Your task to perform on an android device: set the stopwatch Image 0: 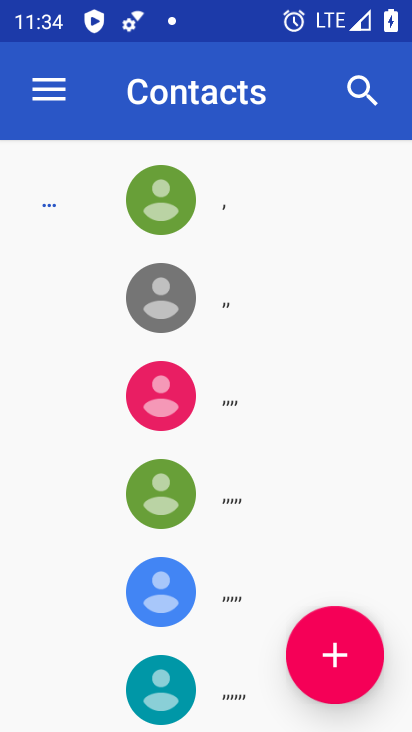
Step 0: press home button
Your task to perform on an android device: set the stopwatch Image 1: 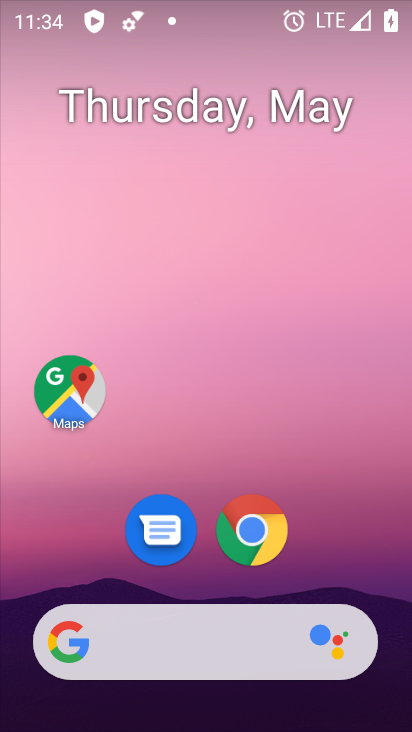
Step 1: drag from (209, 543) to (306, 45)
Your task to perform on an android device: set the stopwatch Image 2: 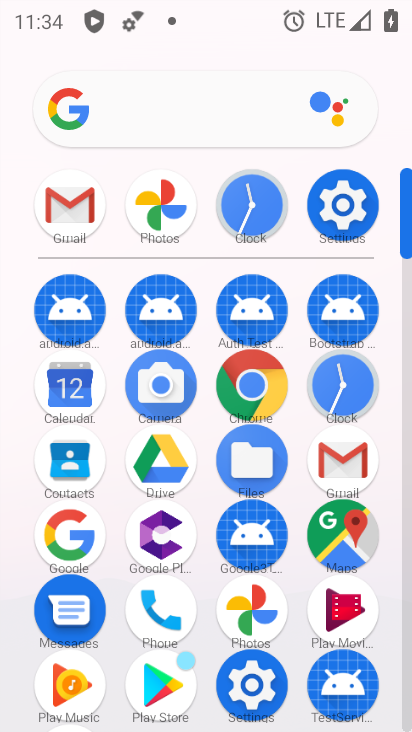
Step 2: click (337, 385)
Your task to perform on an android device: set the stopwatch Image 3: 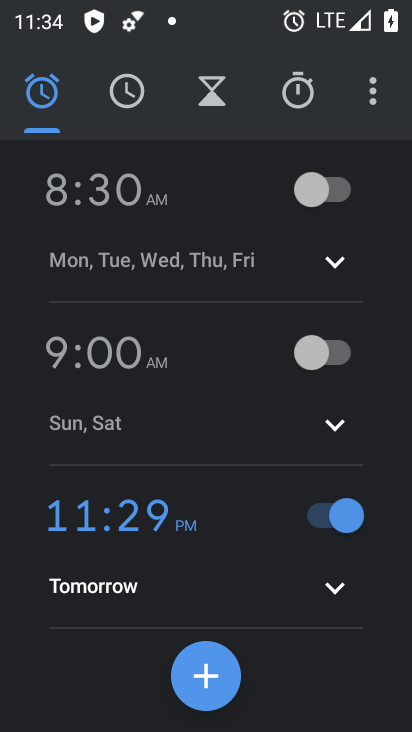
Step 3: click (284, 92)
Your task to perform on an android device: set the stopwatch Image 4: 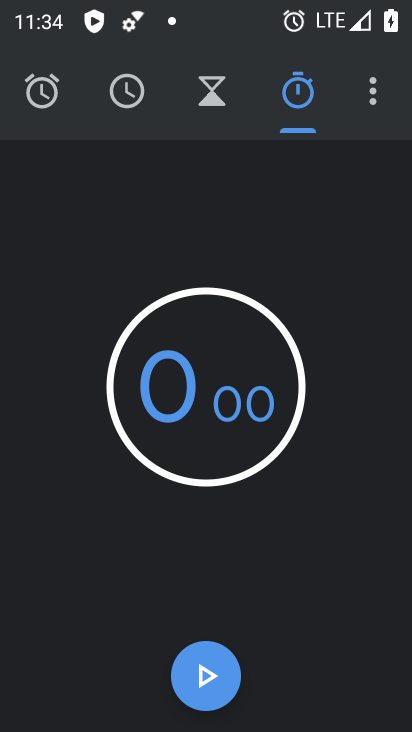
Step 4: click (206, 677)
Your task to perform on an android device: set the stopwatch Image 5: 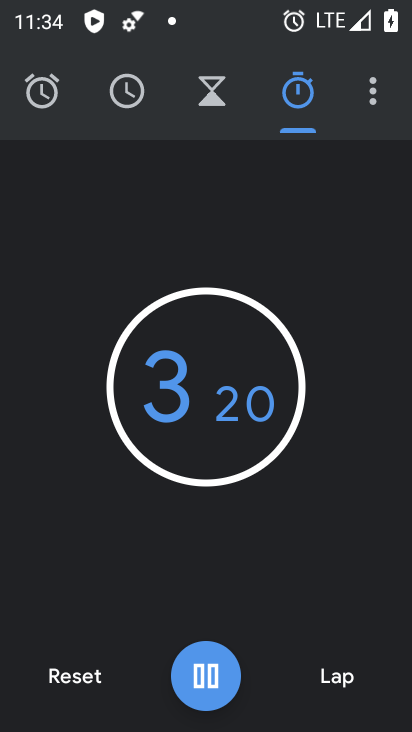
Step 5: task complete